Your task to perform on an android device: check the backup settings in the google photos Image 0: 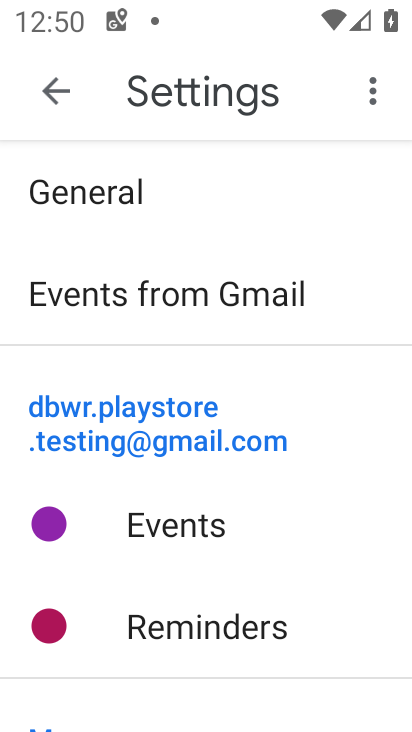
Step 0: press back button
Your task to perform on an android device: check the backup settings in the google photos Image 1: 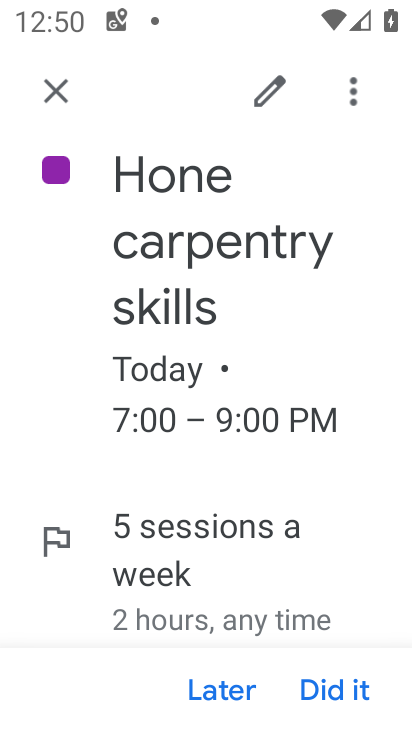
Step 1: press back button
Your task to perform on an android device: check the backup settings in the google photos Image 2: 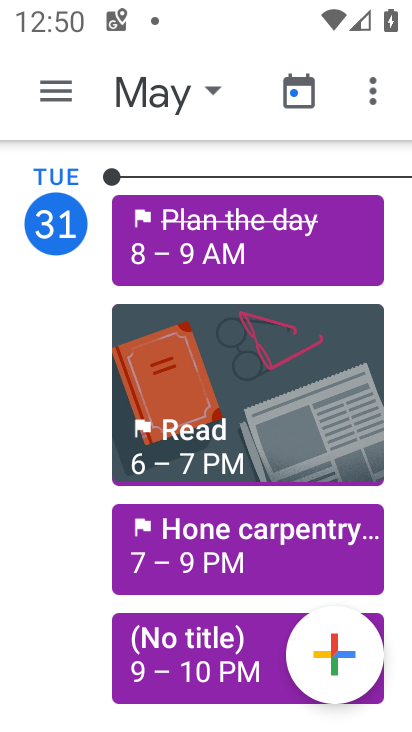
Step 2: press back button
Your task to perform on an android device: check the backup settings in the google photos Image 3: 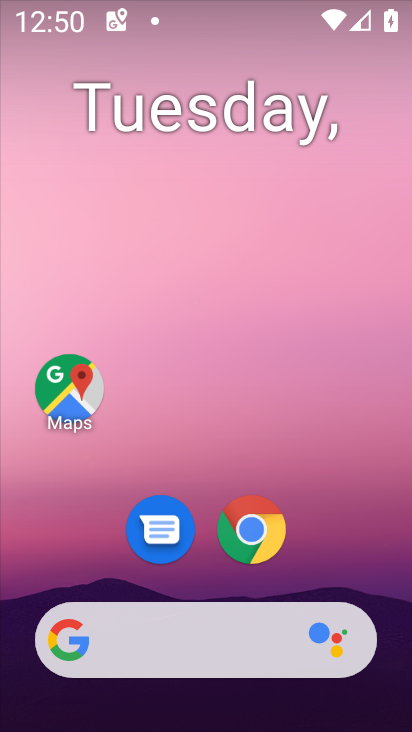
Step 3: drag from (194, 417) to (238, 16)
Your task to perform on an android device: check the backup settings in the google photos Image 4: 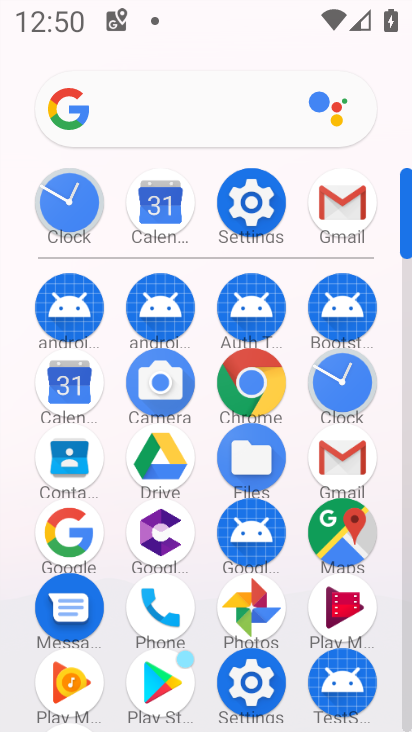
Step 4: click (267, 612)
Your task to perform on an android device: check the backup settings in the google photos Image 5: 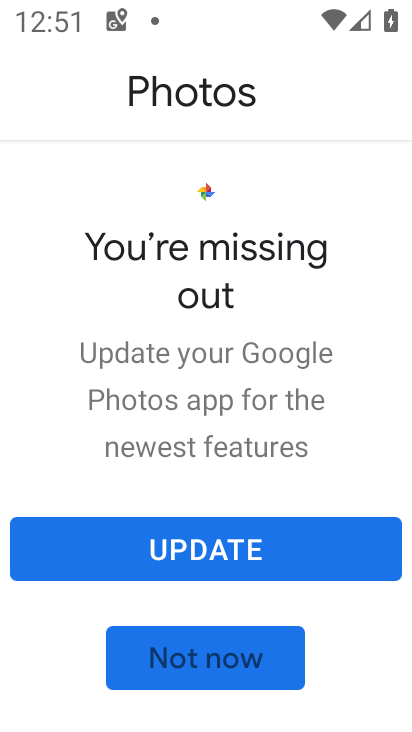
Step 5: click (168, 662)
Your task to perform on an android device: check the backup settings in the google photos Image 6: 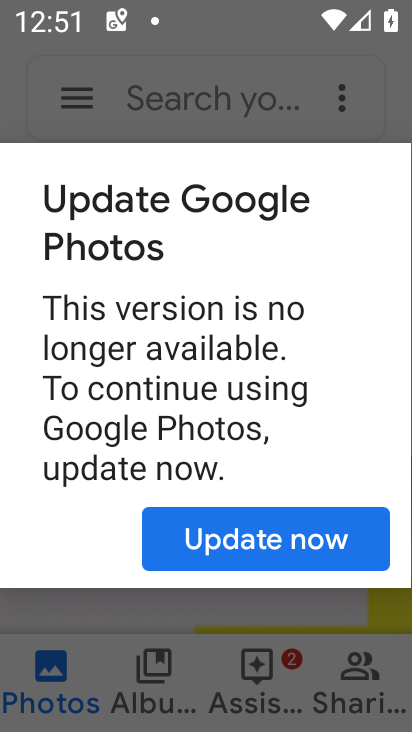
Step 6: click (271, 543)
Your task to perform on an android device: check the backup settings in the google photos Image 7: 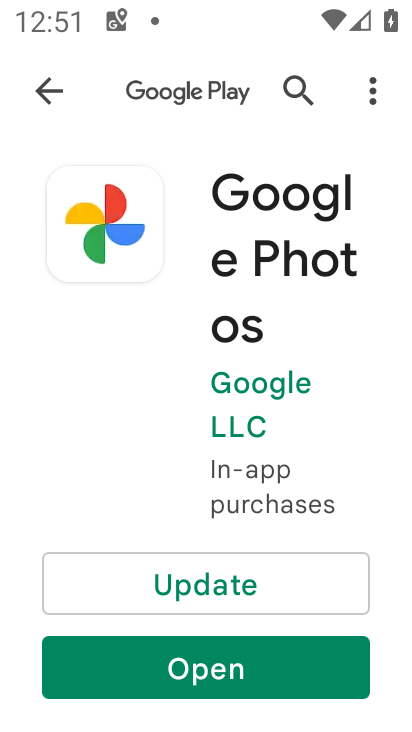
Step 7: click (191, 669)
Your task to perform on an android device: check the backup settings in the google photos Image 8: 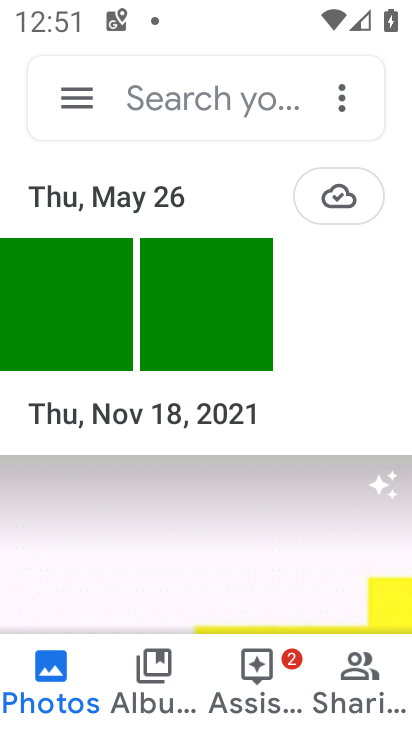
Step 8: click (81, 96)
Your task to perform on an android device: check the backup settings in the google photos Image 9: 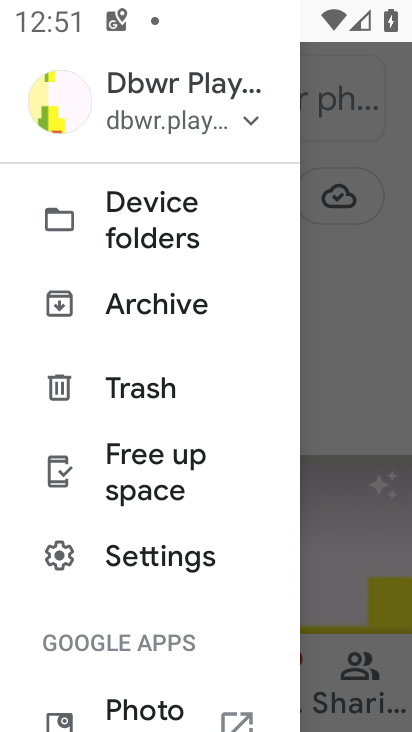
Step 9: click (150, 550)
Your task to perform on an android device: check the backup settings in the google photos Image 10: 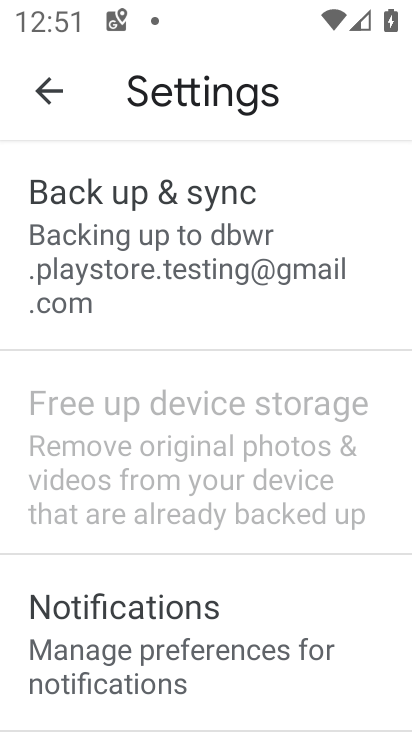
Step 10: click (179, 229)
Your task to perform on an android device: check the backup settings in the google photos Image 11: 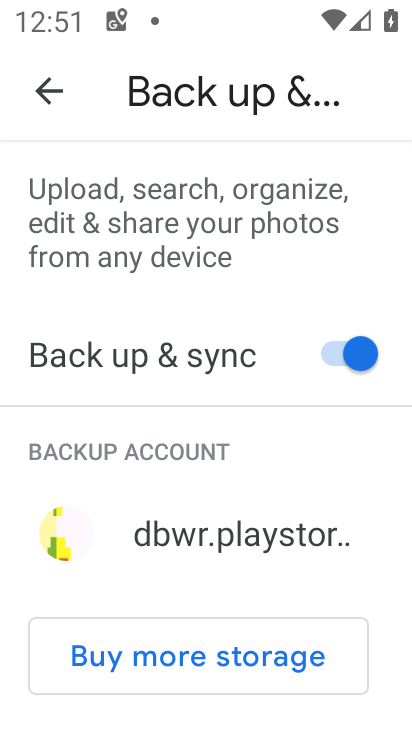
Step 11: task complete